Your task to perform on an android device: turn on location history Image 0: 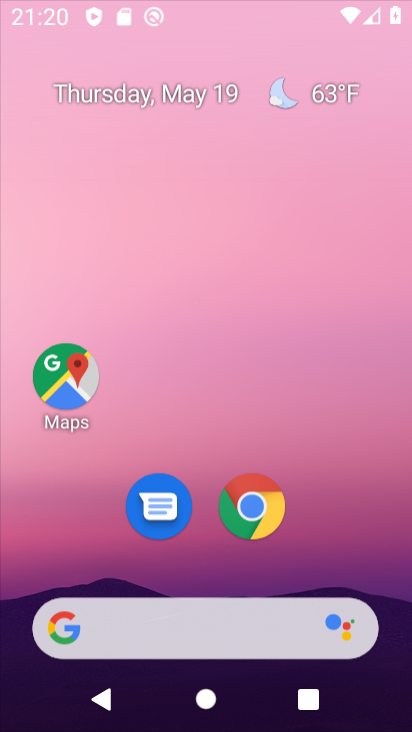
Step 0: drag from (325, 277) to (301, 62)
Your task to perform on an android device: turn on location history Image 1: 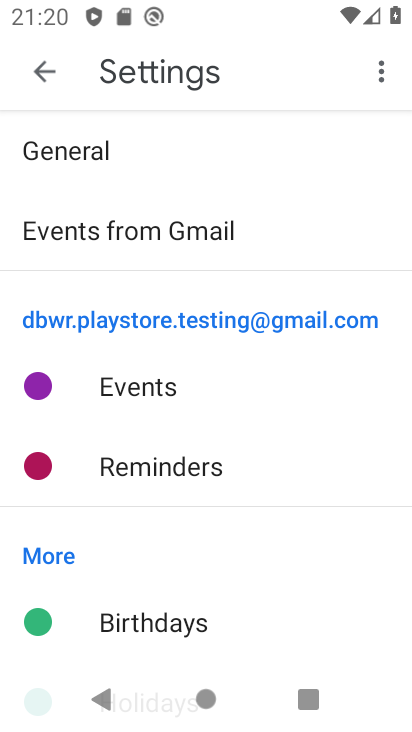
Step 1: press home button
Your task to perform on an android device: turn on location history Image 2: 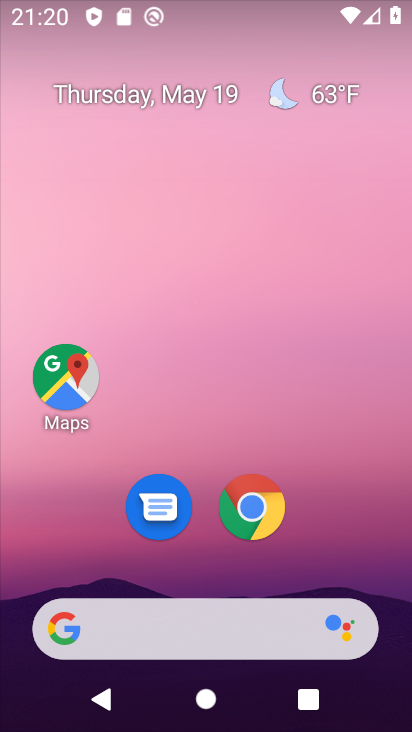
Step 2: click (81, 376)
Your task to perform on an android device: turn on location history Image 3: 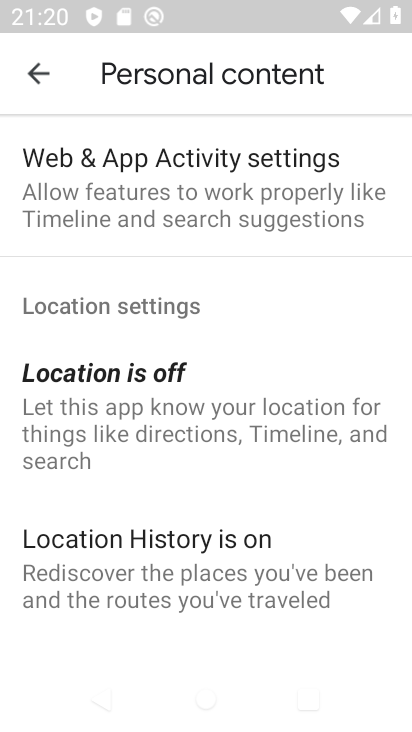
Step 3: click (182, 564)
Your task to perform on an android device: turn on location history Image 4: 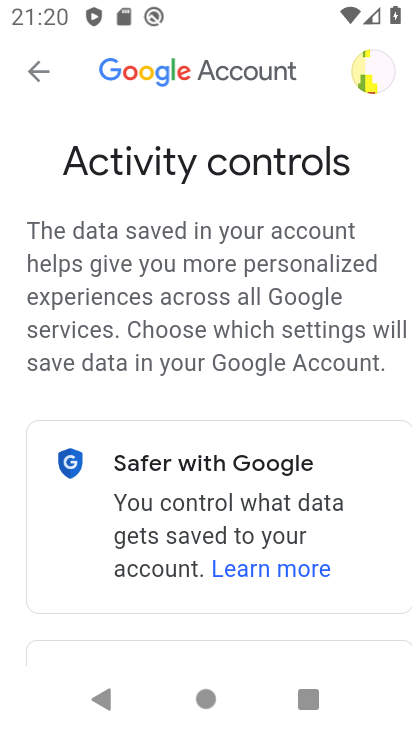
Step 4: drag from (349, 531) to (378, 109)
Your task to perform on an android device: turn on location history Image 5: 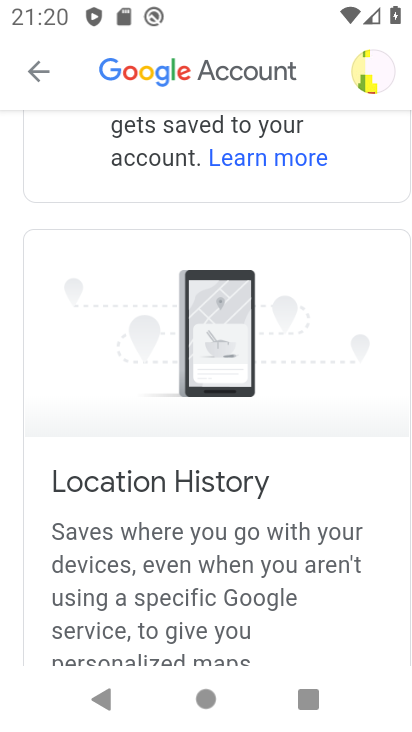
Step 5: drag from (329, 551) to (307, 195)
Your task to perform on an android device: turn on location history Image 6: 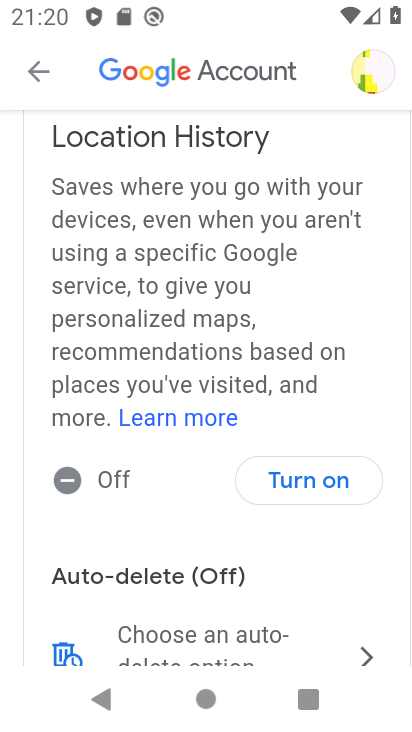
Step 6: click (319, 481)
Your task to perform on an android device: turn on location history Image 7: 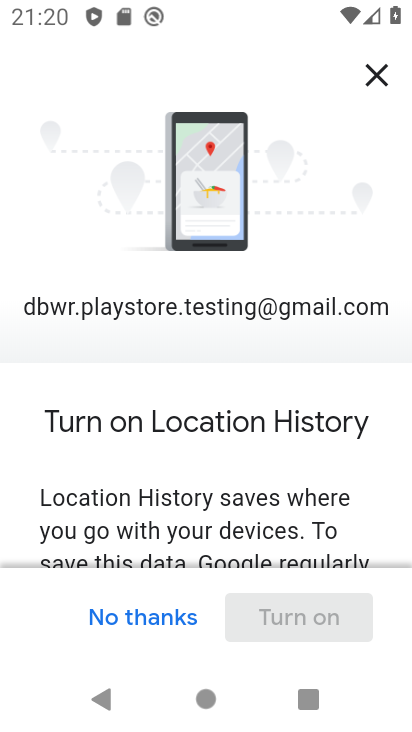
Step 7: drag from (318, 523) to (315, 77)
Your task to perform on an android device: turn on location history Image 8: 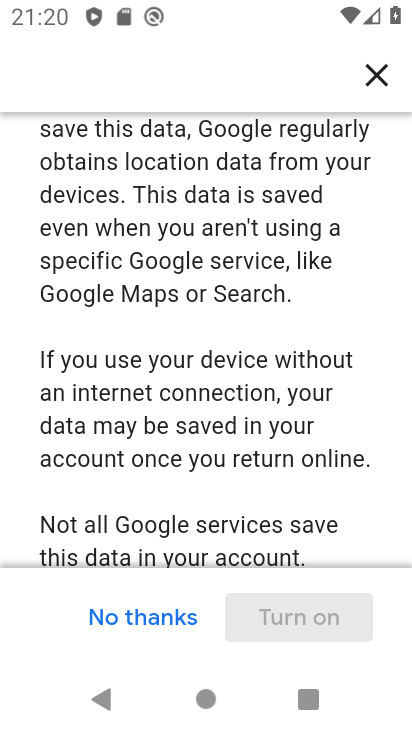
Step 8: drag from (277, 490) to (278, 56)
Your task to perform on an android device: turn on location history Image 9: 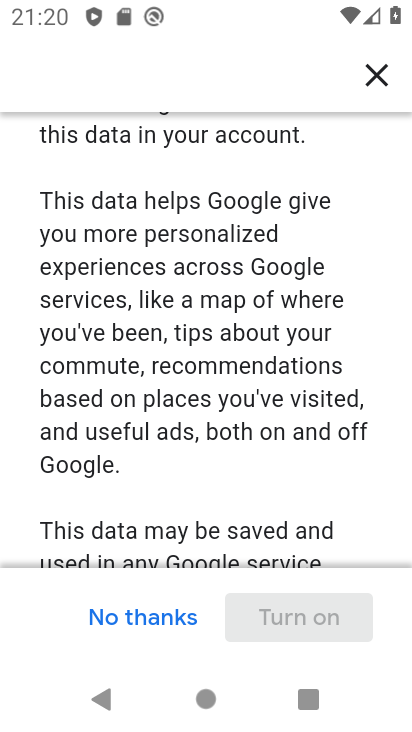
Step 9: drag from (272, 508) to (251, 119)
Your task to perform on an android device: turn on location history Image 10: 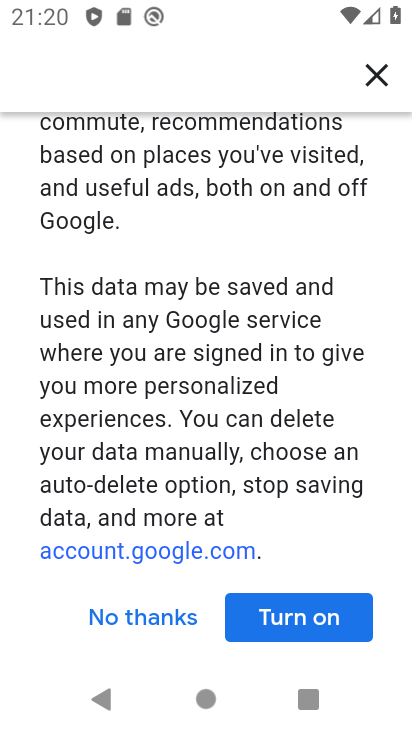
Step 10: click (328, 616)
Your task to perform on an android device: turn on location history Image 11: 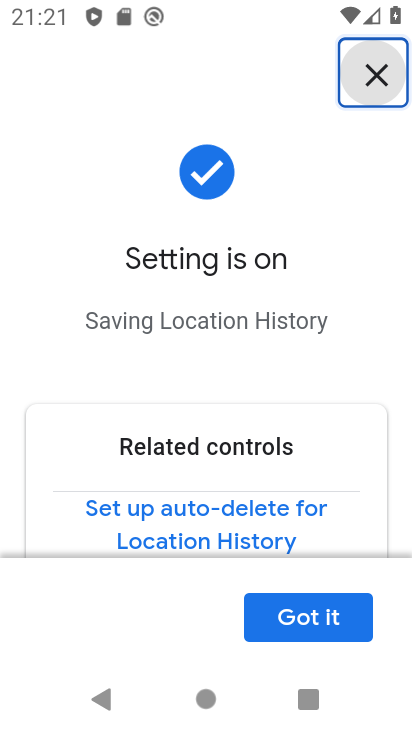
Step 11: click (328, 616)
Your task to perform on an android device: turn on location history Image 12: 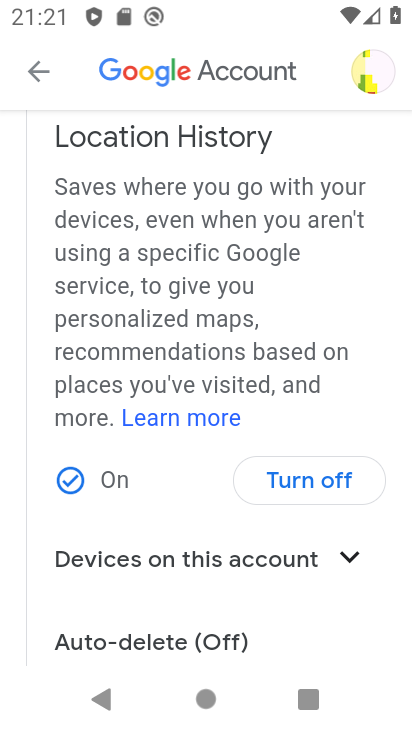
Step 12: task complete